Your task to perform on an android device: set the timer Image 0: 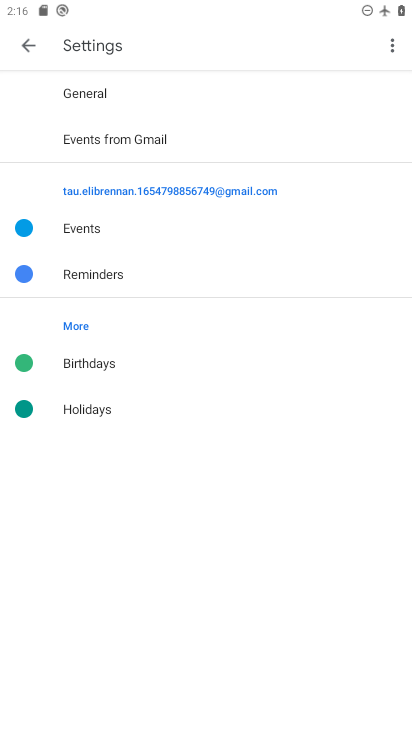
Step 0: press home button
Your task to perform on an android device: set the timer Image 1: 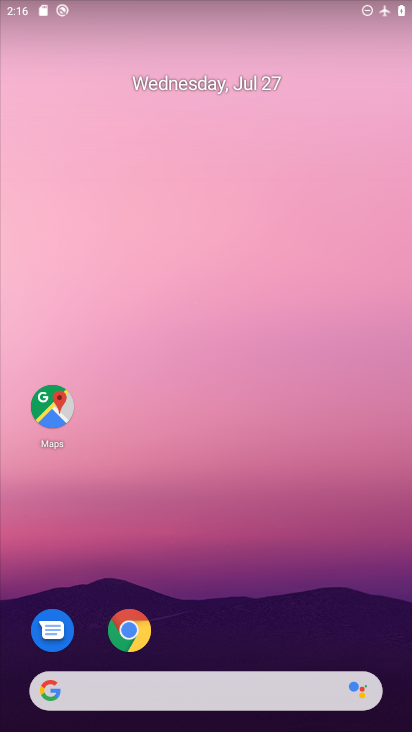
Step 1: drag from (379, 650) to (321, 95)
Your task to perform on an android device: set the timer Image 2: 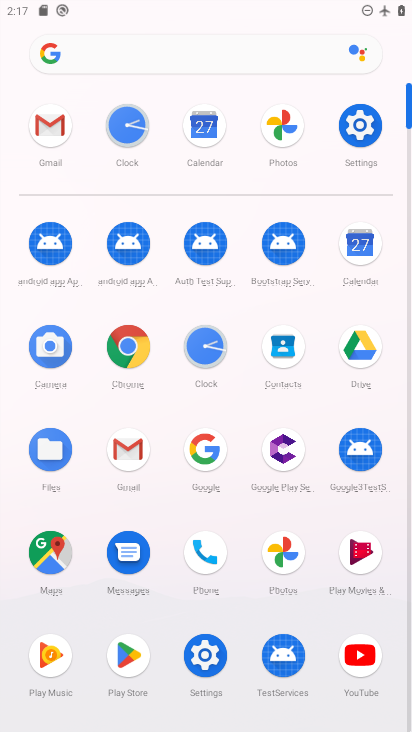
Step 2: click (204, 350)
Your task to perform on an android device: set the timer Image 3: 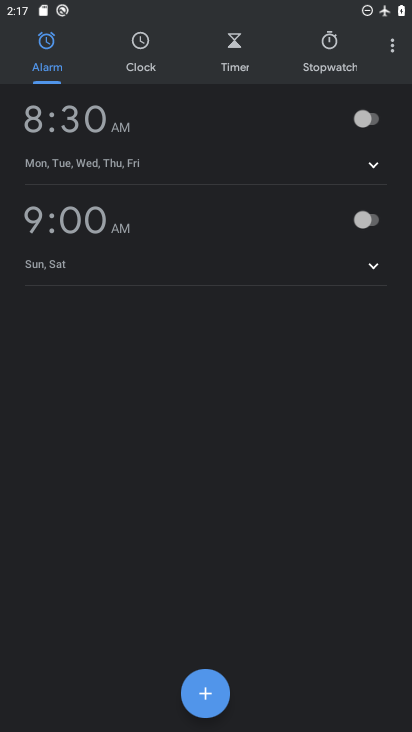
Step 3: click (228, 41)
Your task to perform on an android device: set the timer Image 4: 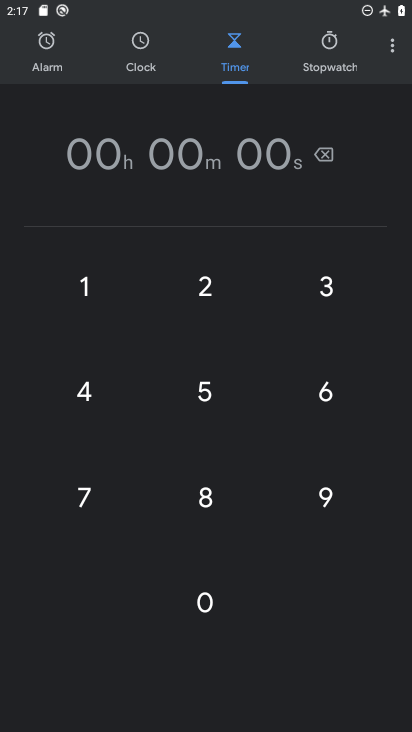
Step 4: click (81, 297)
Your task to perform on an android device: set the timer Image 5: 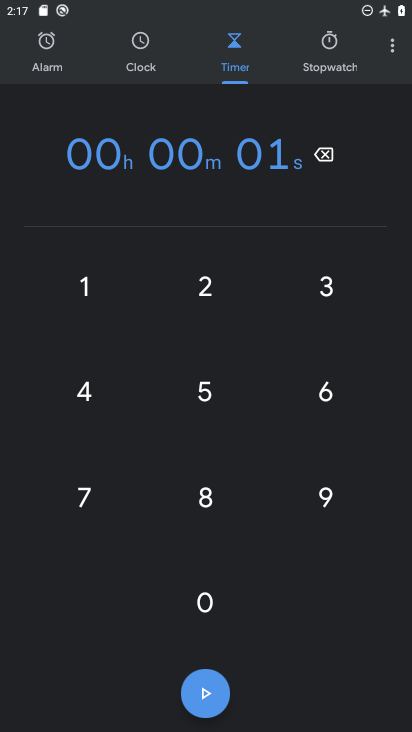
Step 5: click (321, 284)
Your task to perform on an android device: set the timer Image 6: 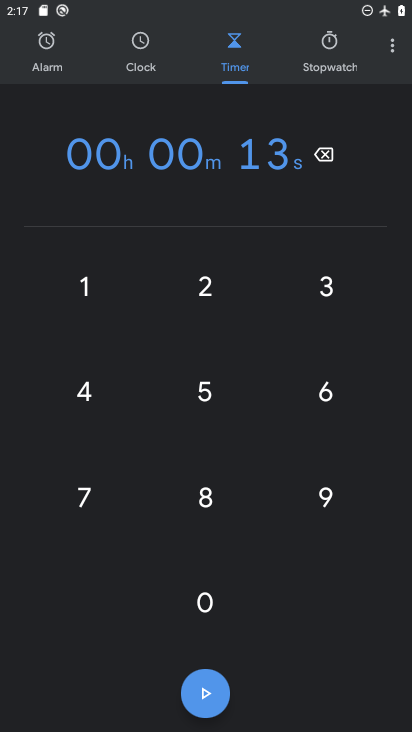
Step 6: click (207, 598)
Your task to perform on an android device: set the timer Image 7: 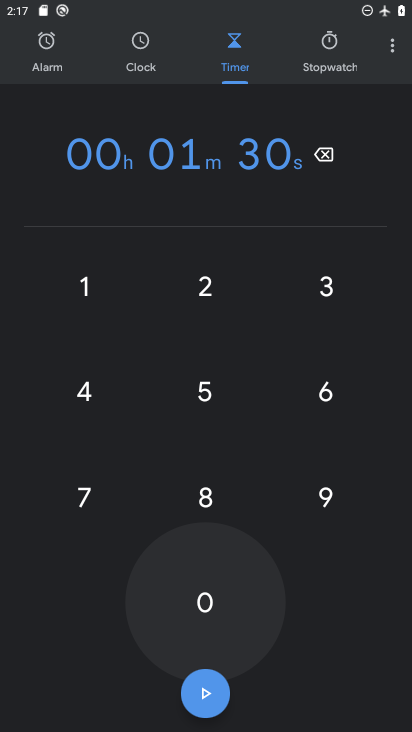
Step 7: click (207, 598)
Your task to perform on an android device: set the timer Image 8: 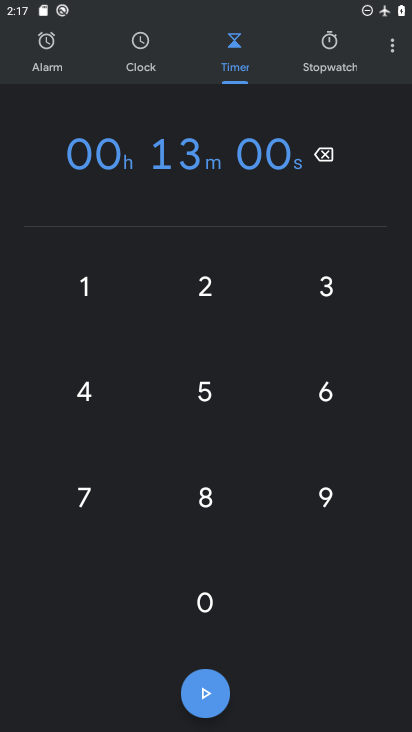
Step 8: click (207, 598)
Your task to perform on an android device: set the timer Image 9: 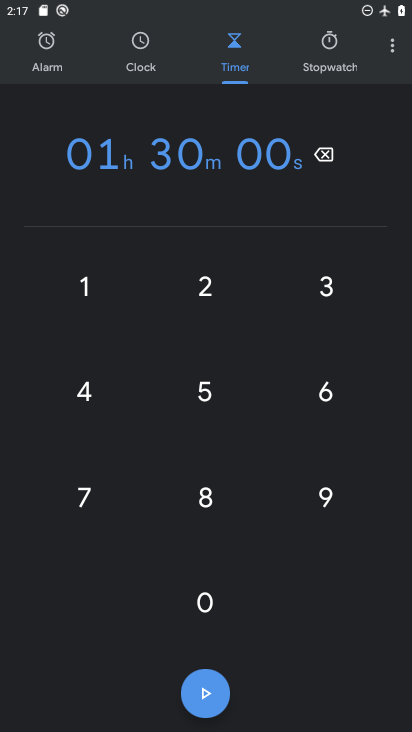
Step 9: task complete